Your task to perform on an android device: Go to network settings Image 0: 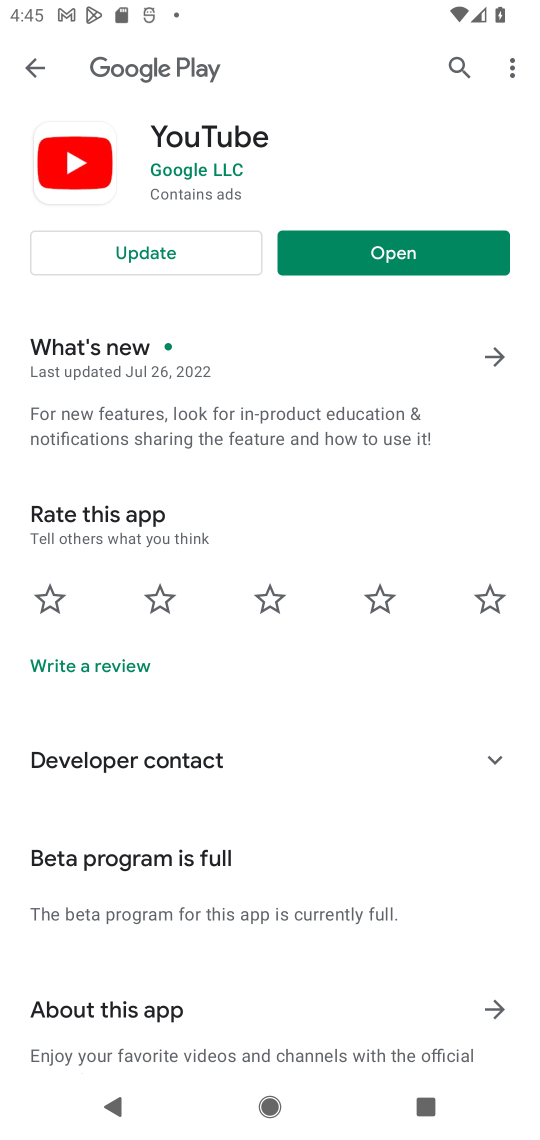
Step 0: press home button
Your task to perform on an android device: Go to network settings Image 1: 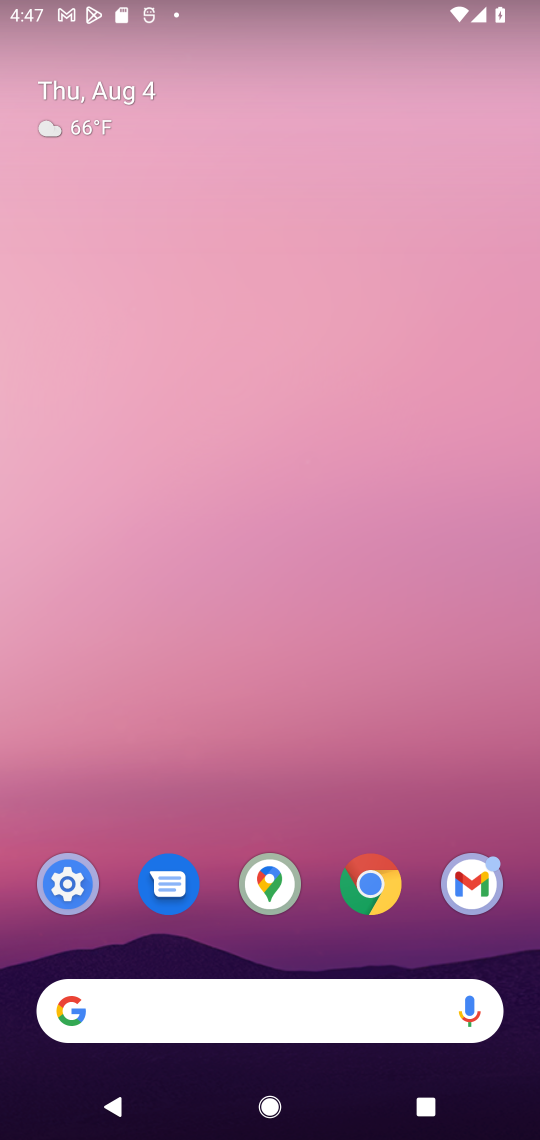
Step 1: click (62, 916)
Your task to perform on an android device: Go to network settings Image 2: 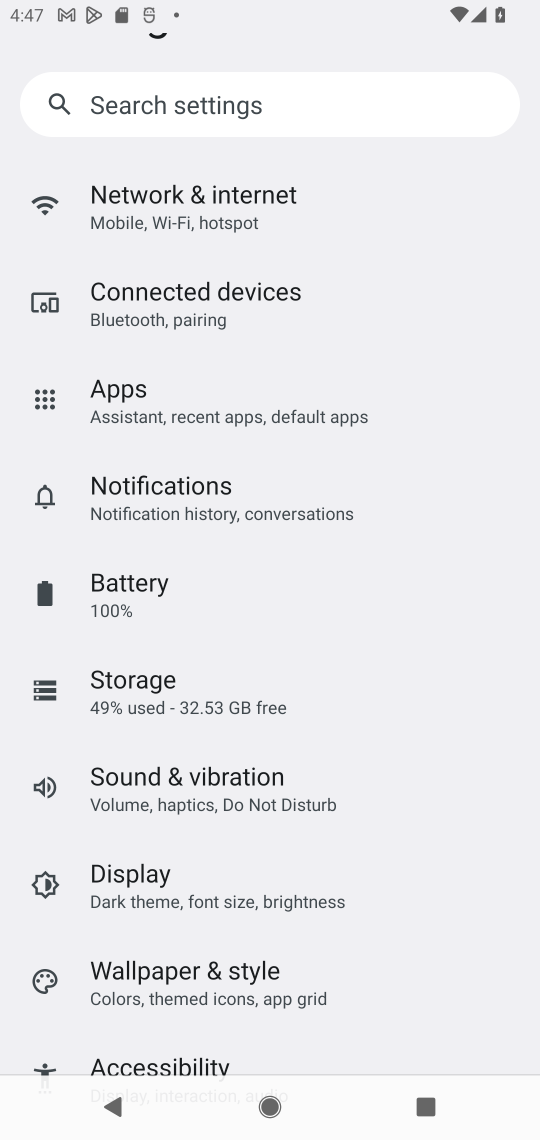
Step 2: click (152, 256)
Your task to perform on an android device: Go to network settings Image 3: 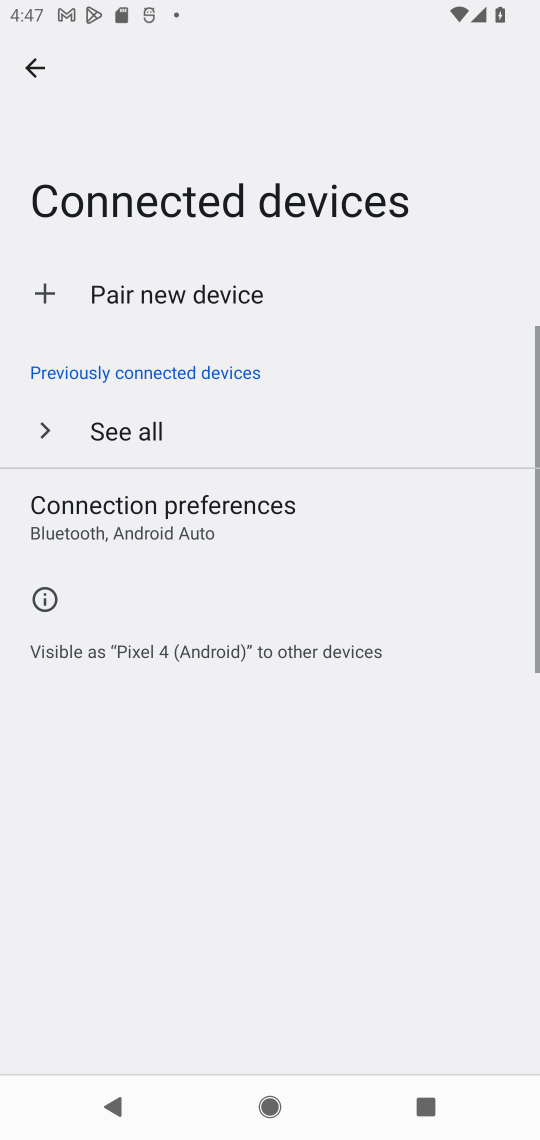
Step 3: task complete